Your task to perform on an android device: turn off wifi Image 0: 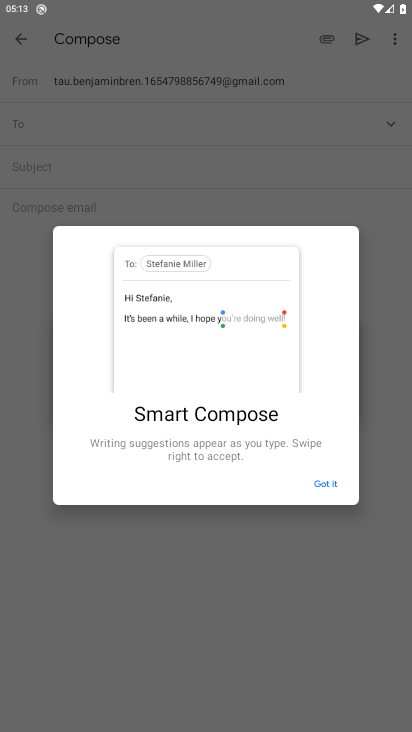
Step 0: press home button
Your task to perform on an android device: turn off wifi Image 1: 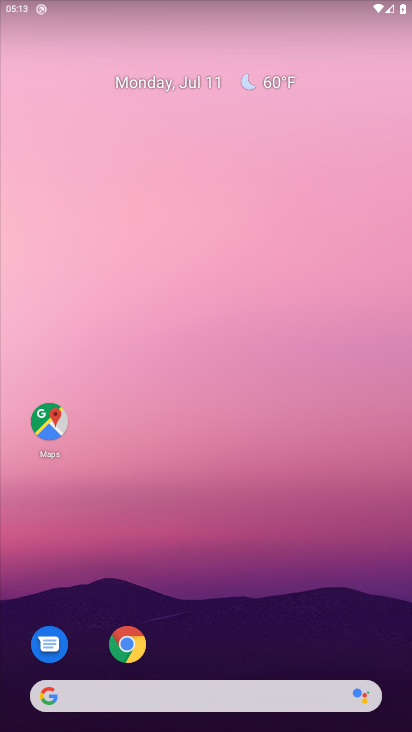
Step 1: drag from (223, 681) to (208, 282)
Your task to perform on an android device: turn off wifi Image 2: 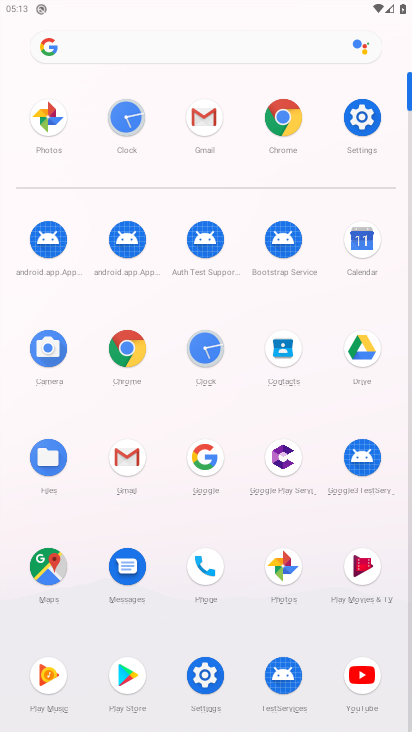
Step 2: click (361, 122)
Your task to perform on an android device: turn off wifi Image 3: 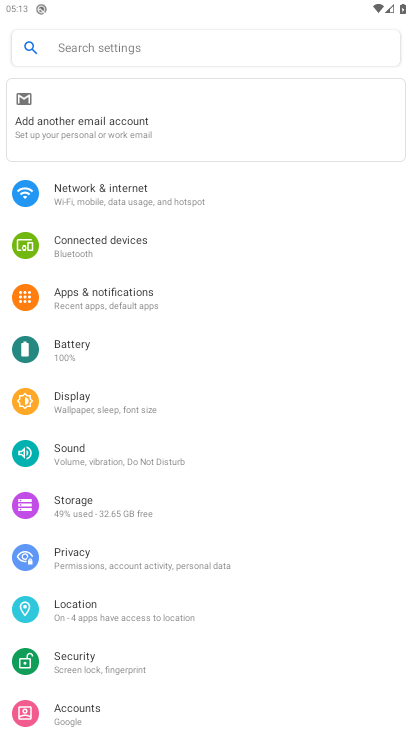
Step 3: click (99, 198)
Your task to perform on an android device: turn off wifi Image 4: 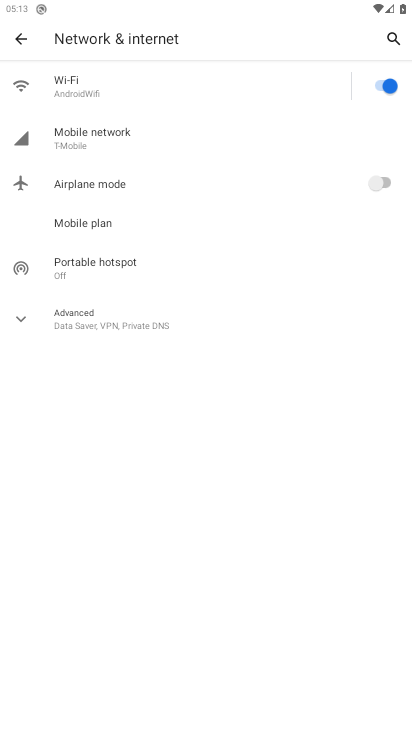
Step 4: click (380, 85)
Your task to perform on an android device: turn off wifi Image 5: 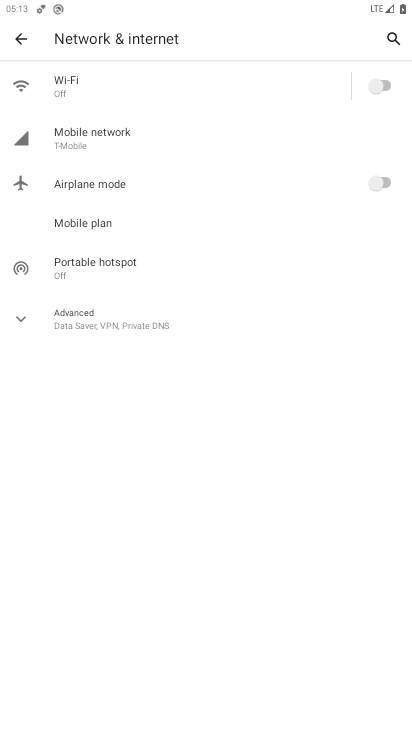
Step 5: task complete